Your task to perform on an android device: find snoozed emails in the gmail app Image 0: 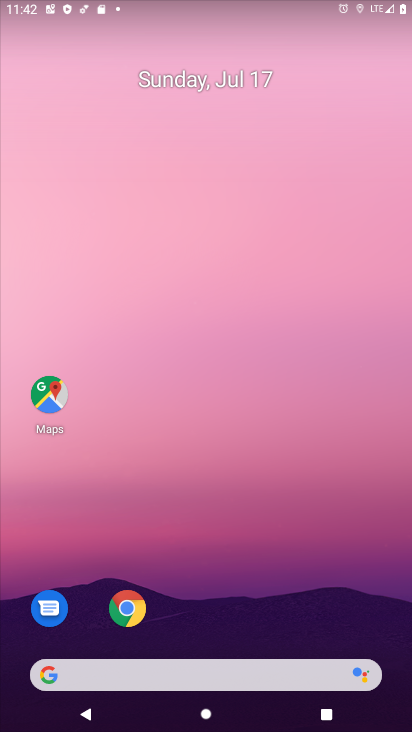
Step 0: drag from (178, 650) to (112, 37)
Your task to perform on an android device: find snoozed emails in the gmail app Image 1: 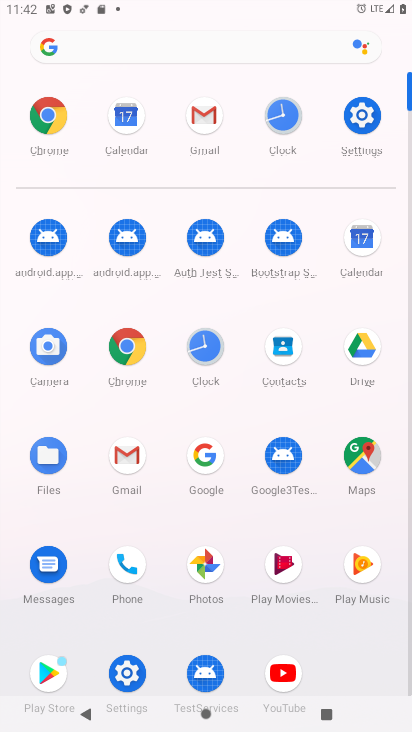
Step 1: click (116, 461)
Your task to perform on an android device: find snoozed emails in the gmail app Image 2: 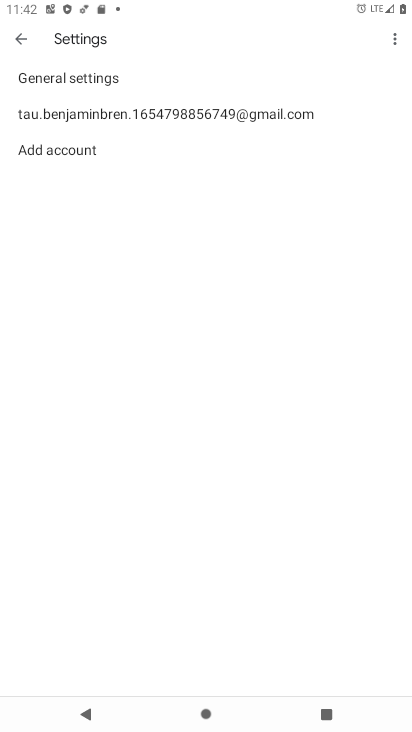
Step 2: click (16, 40)
Your task to perform on an android device: find snoozed emails in the gmail app Image 3: 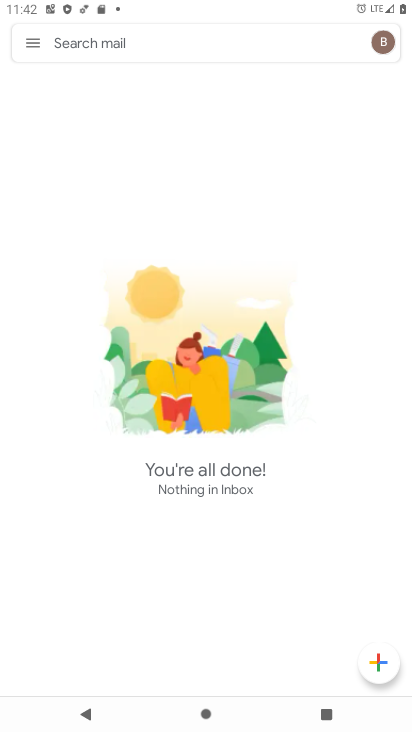
Step 3: click (14, 40)
Your task to perform on an android device: find snoozed emails in the gmail app Image 4: 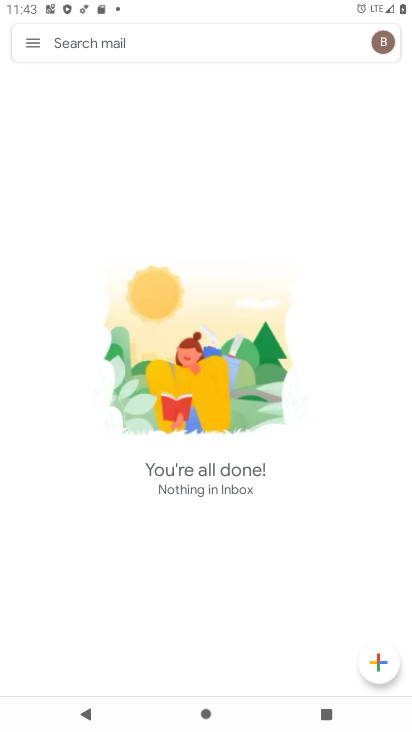
Step 4: task complete